Your task to perform on an android device: Go to calendar. Show me events next week Image 0: 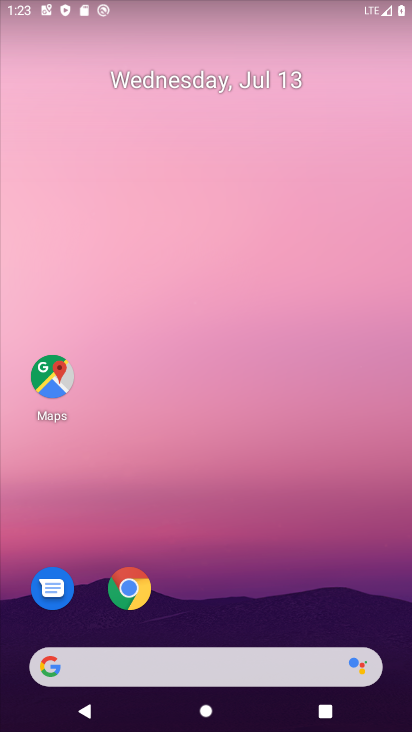
Step 0: drag from (393, 683) to (380, 274)
Your task to perform on an android device: Go to calendar. Show me events next week Image 1: 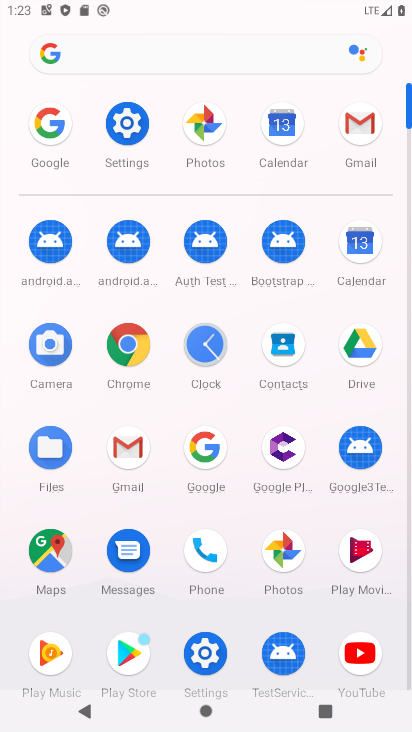
Step 1: click (365, 241)
Your task to perform on an android device: Go to calendar. Show me events next week Image 2: 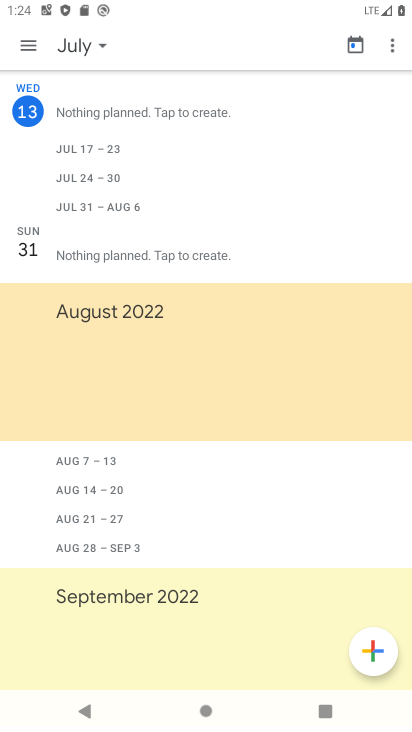
Step 2: click (98, 40)
Your task to perform on an android device: Go to calendar. Show me events next week Image 3: 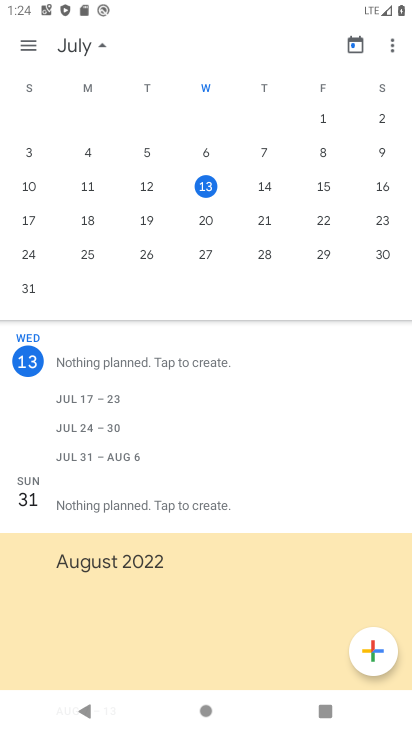
Step 3: click (201, 216)
Your task to perform on an android device: Go to calendar. Show me events next week Image 4: 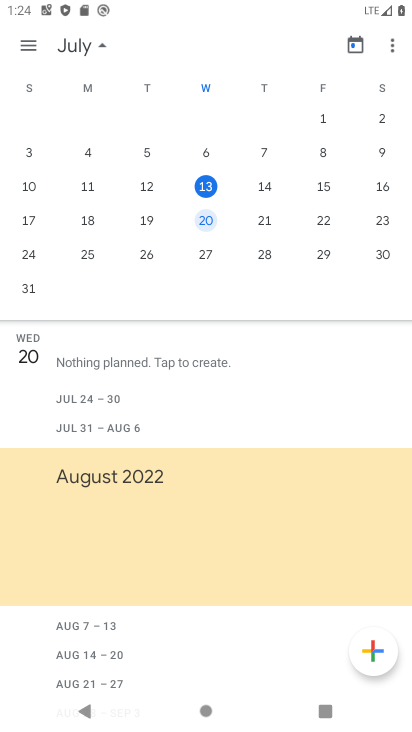
Step 4: click (29, 45)
Your task to perform on an android device: Go to calendar. Show me events next week Image 5: 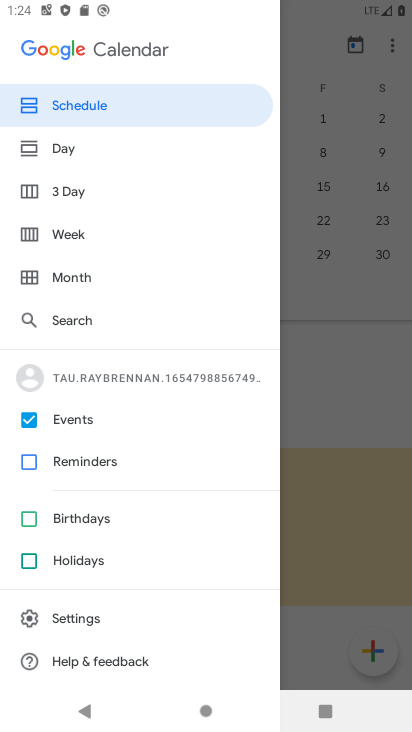
Step 5: click (67, 230)
Your task to perform on an android device: Go to calendar. Show me events next week Image 6: 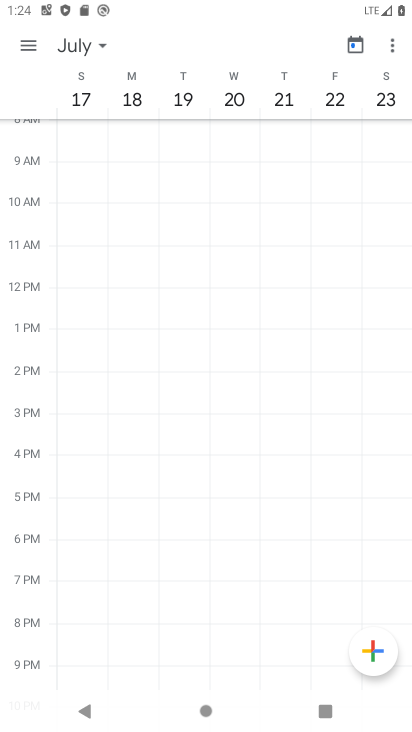
Step 6: task complete